Your task to perform on an android device: open device folders in google photos Image 0: 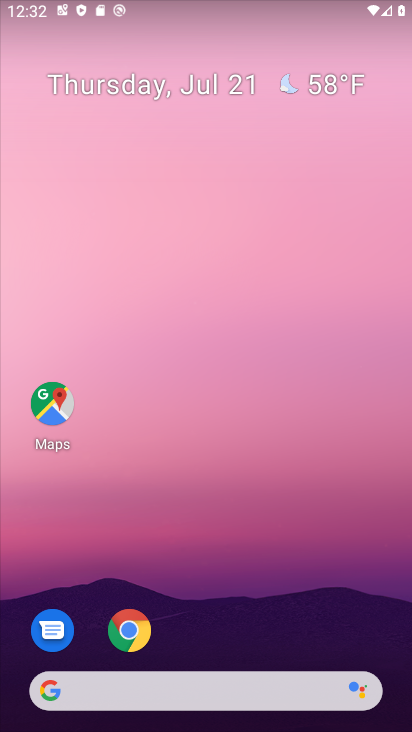
Step 0: drag from (187, 590) to (167, 175)
Your task to perform on an android device: open device folders in google photos Image 1: 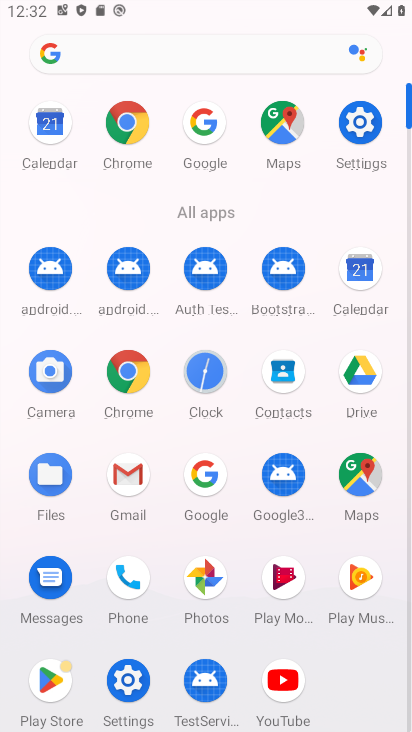
Step 1: click (208, 574)
Your task to perform on an android device: open device folders in google photos Image 2: 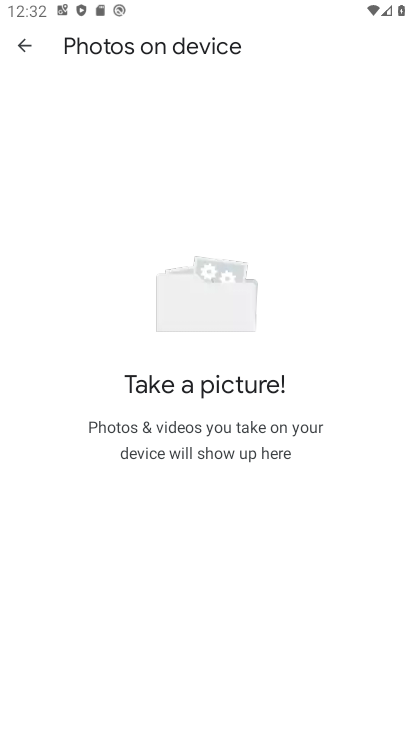
Step 2: task complete